Your task to perform on an android device: turn off location Image 0: 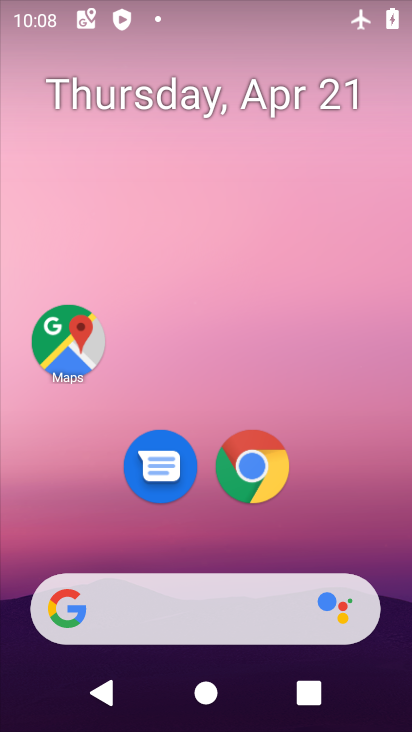
Step 0: drag from (372, 529) to (284, 90)
Your task to perform on an android device: turn off location Image 1: 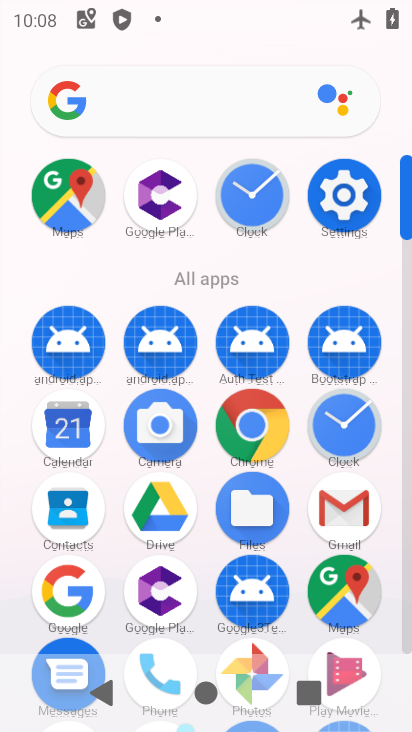
Step 1: click (346, 204)
Your task to perform on an android device: turn off location Image 2: 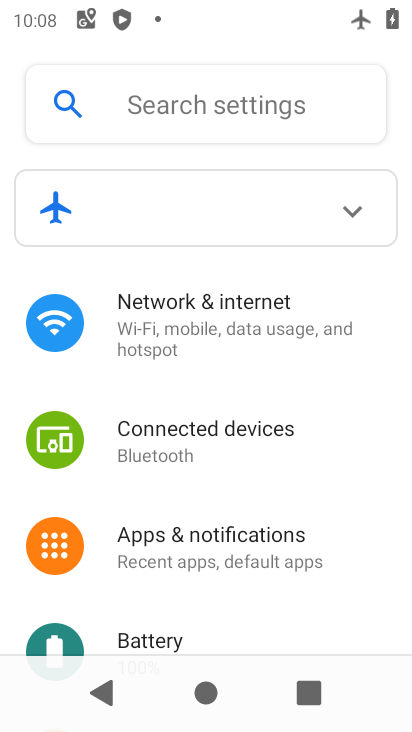
Step 2: drag from (242, 602) to (272, 166)
Your task to perform on an android device: turn off location Image 3: 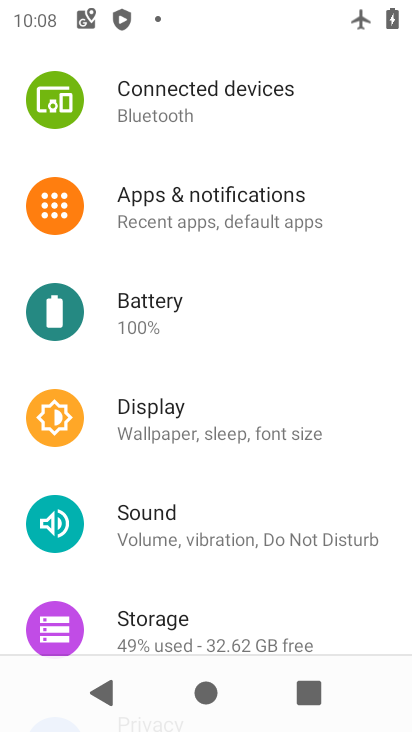
Step 3: drag from (242, 590) to (272, 255)
Your task to perform on an android device: turn off location Image 4: 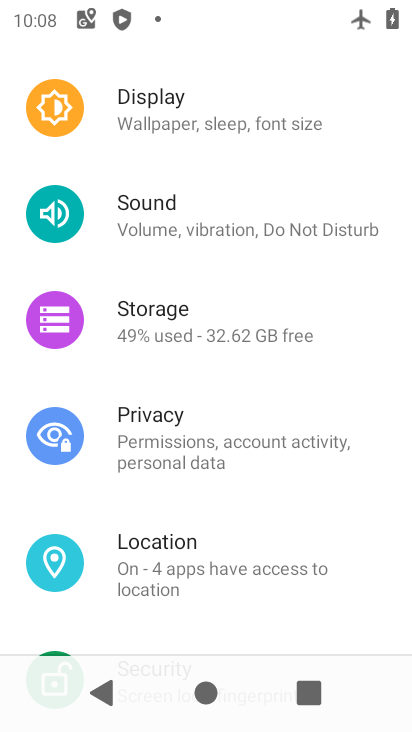
Step 4: click (169, 570)
Your task to perform on an android device: turn off location Image 5: 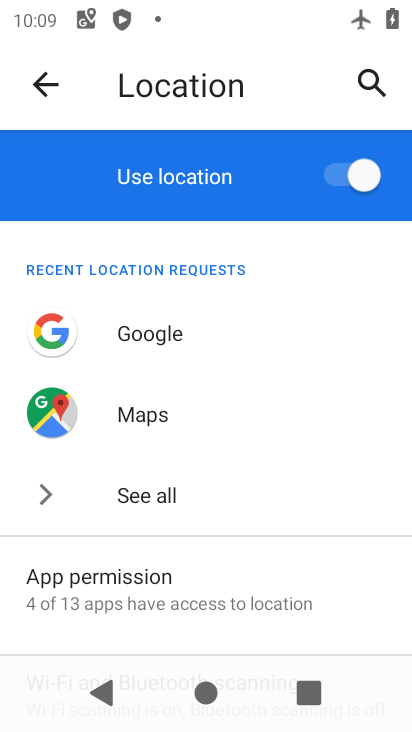
Step 5: click (342, 187)
Your task to perform on an android device: turn off location Image 6: 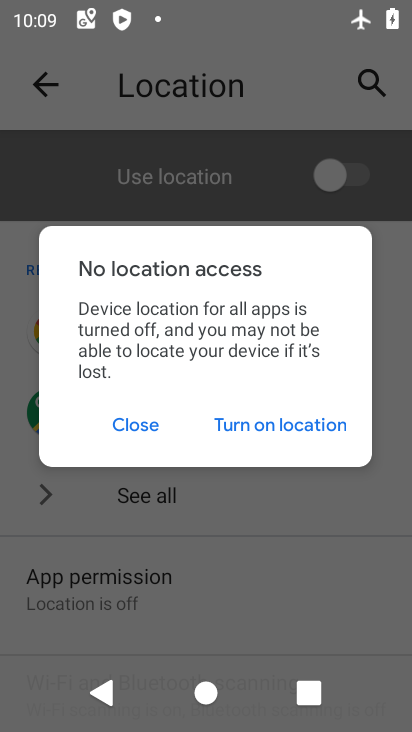
Step 6: task complete